Your task to perform on an android device: Go to notification settings Image 0: 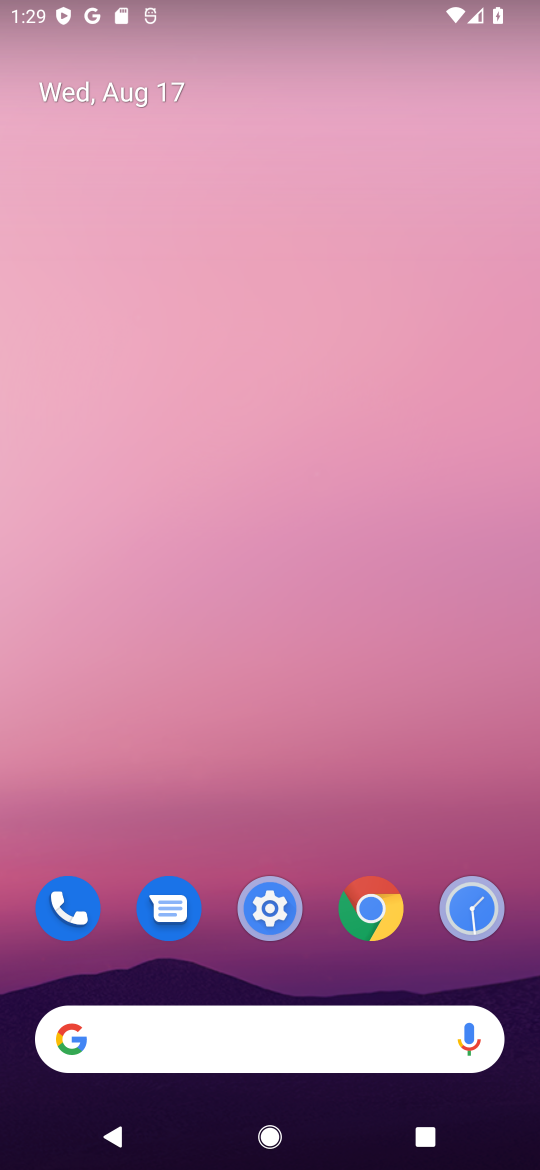
Step 0: press home button
Your task to perform on an android device: Go to notification settings Image 1: 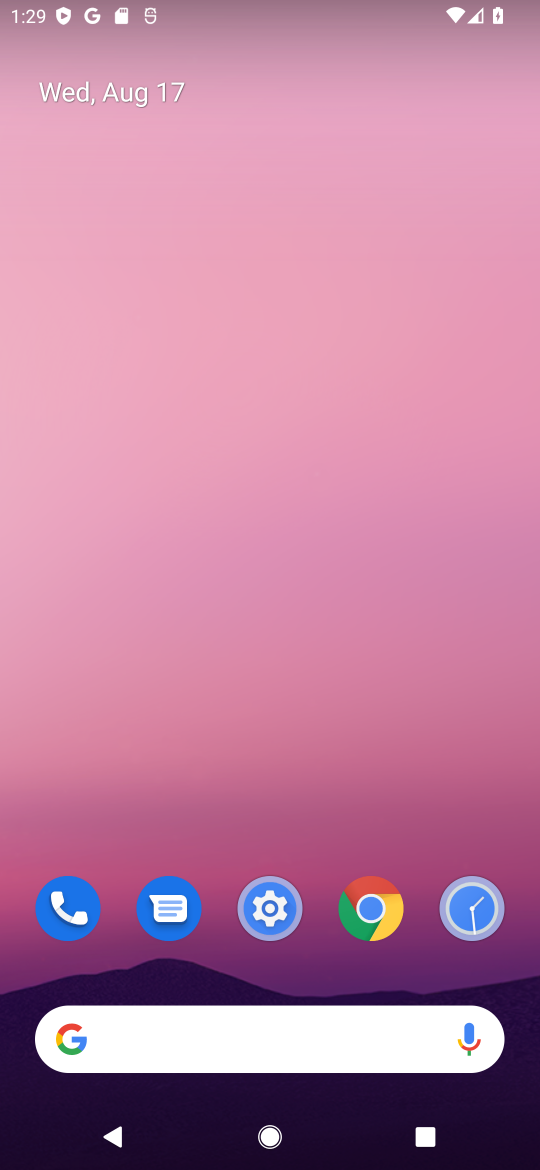
Step 1: click (274, 926)
Your task to perform on an android device: Go to notification settings Image 2: 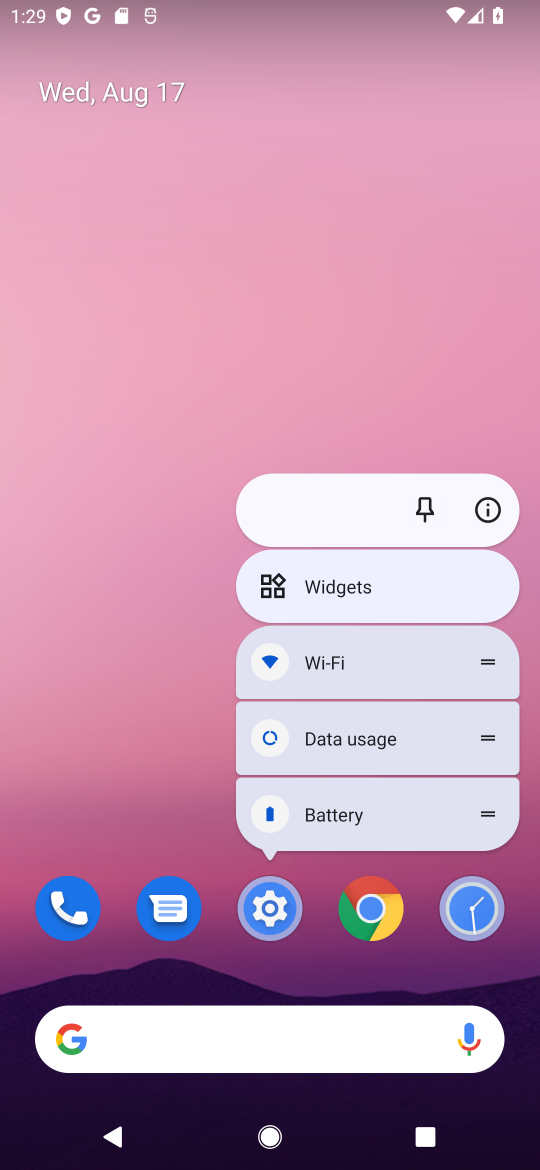
Step 2: click (289, 878)
Your task to perform on an android device: Go to notification settings Image 3: 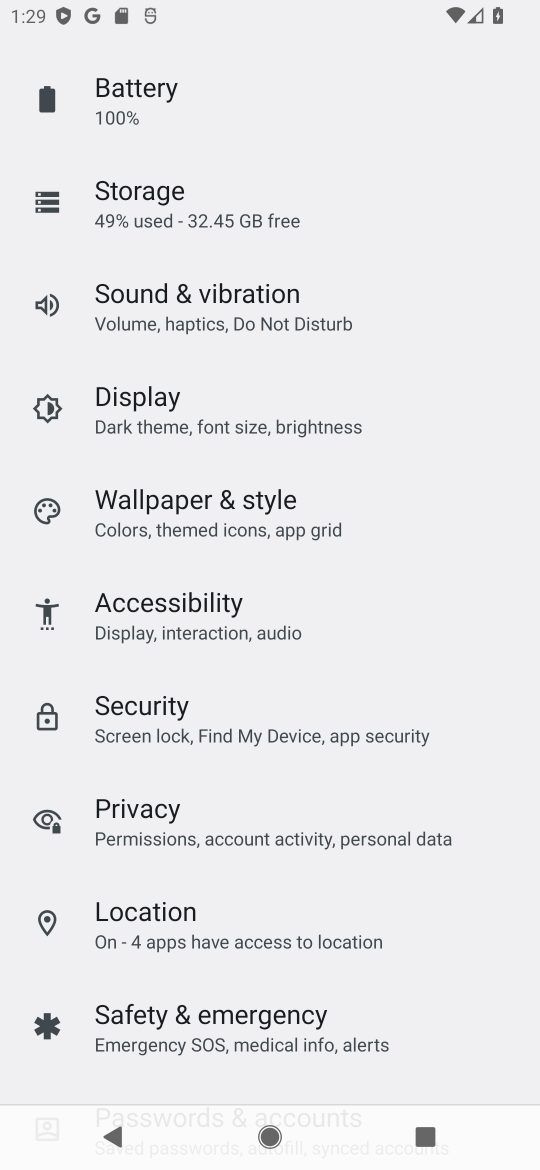
Step 3: drag from (372, 355) to (466, 982)
Your task to perform on an android device: Go to notification settings Image 4: 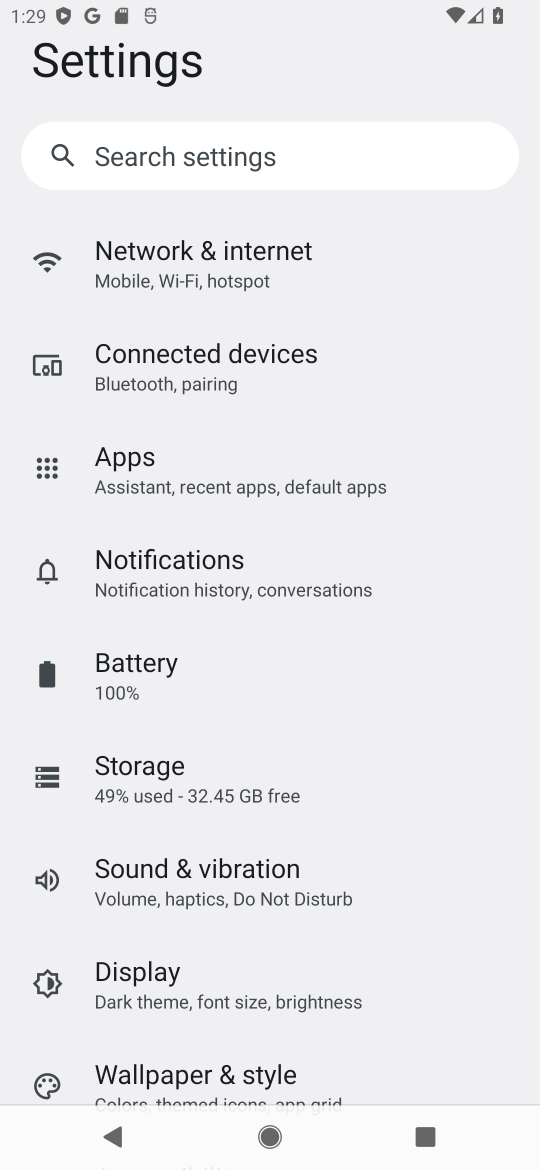
Step 4: click (158, 573)
Your task to perform on an android device: Go to notification settings Image 5: 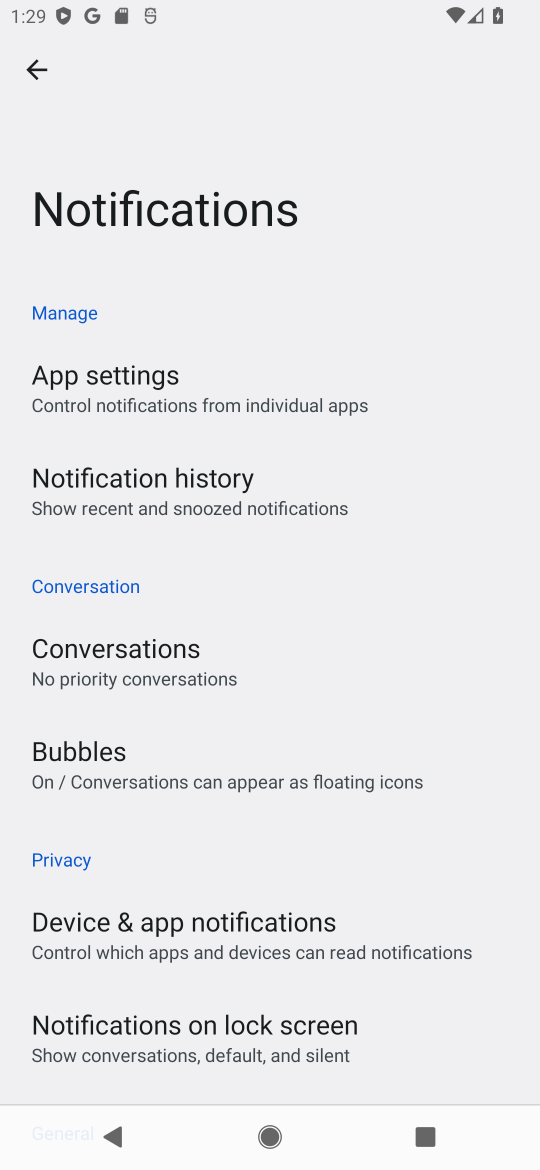
Step 5: task complete